Your task to perform on an android device: turn off airplane mode Image 0: 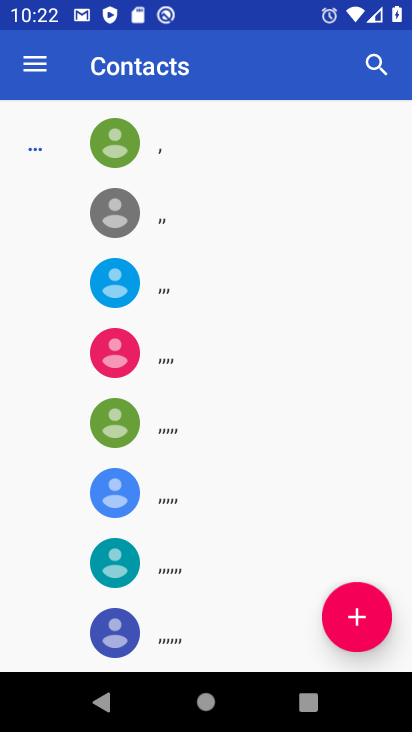
Step 0: press home button
Your task to perform on an android device: turn off airplane mode Image 1: 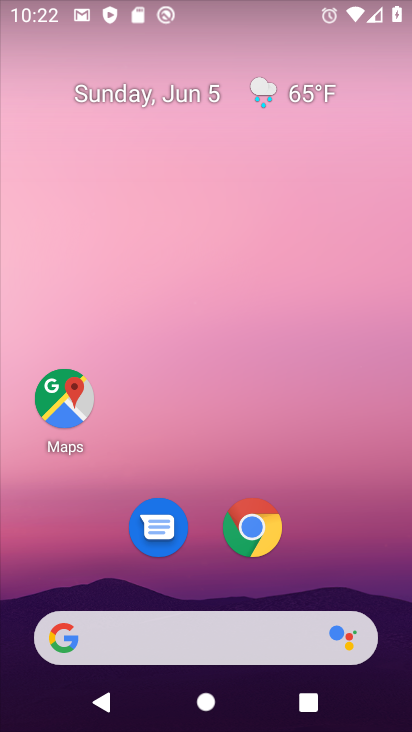
Step 1: drag from (334, 1) to (316, 569)
Your task to perform on an android device: turn off airplane mode Image 2: 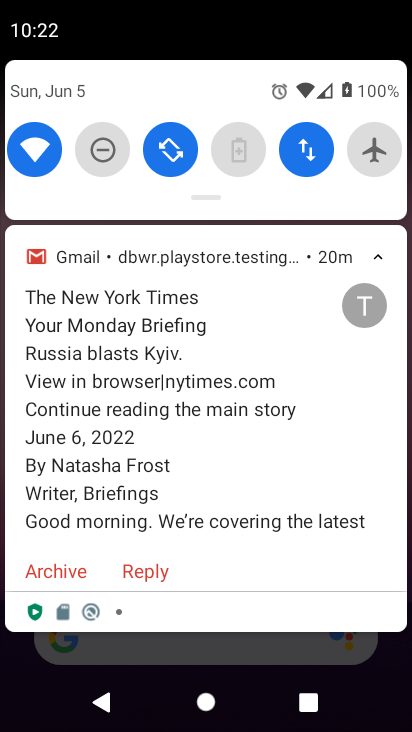
Step 2: click (370, 169)
Your task to perform on an android device: turn off airplane mode Image 3: 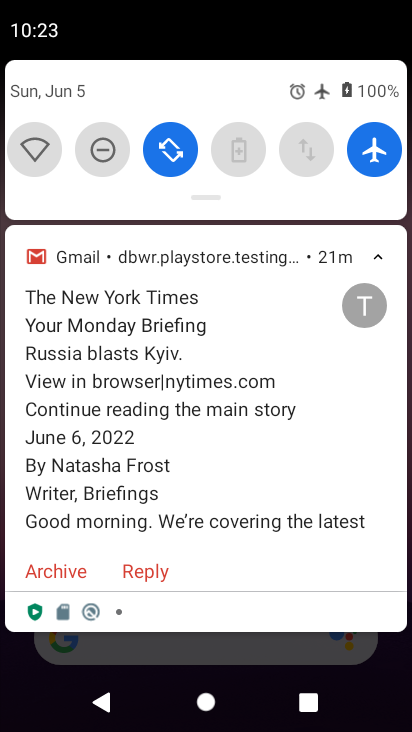
Step 3: task complete